Your task to perform on an android device: remove spam from my inbox in the gmail app Image 0: 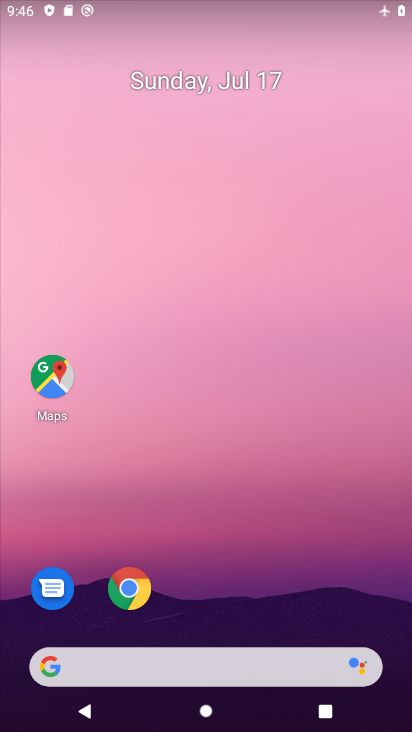
Step 0: drag from (274, 629) to (251, 82)
Your task to perform on an android device: remove spam from my inbox in the gmail app Image 1: 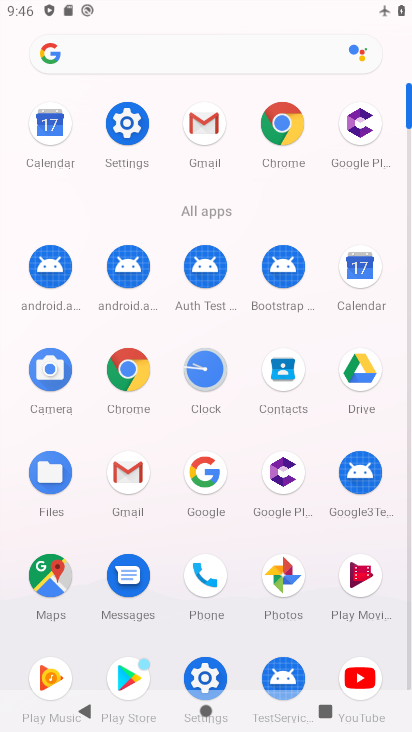
Step 1: click (210, 122)
Your task to perform on an android device: remove spam from my inbox in the gmail app Image 2: 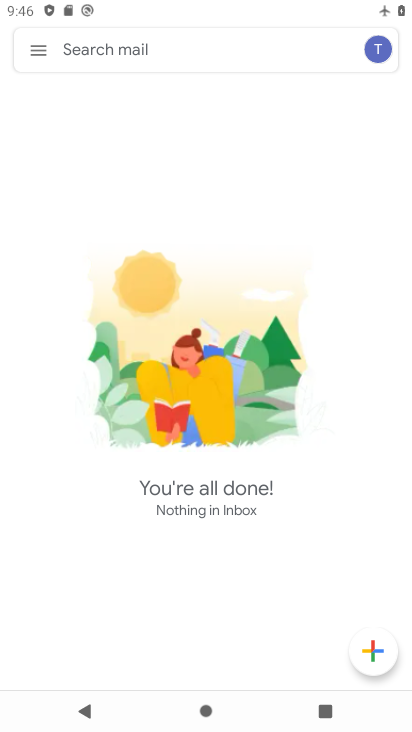
Step 2: click (37, 57)
Your task to perform on an android device: remove spam from my inbox in the gmail app Image 3: 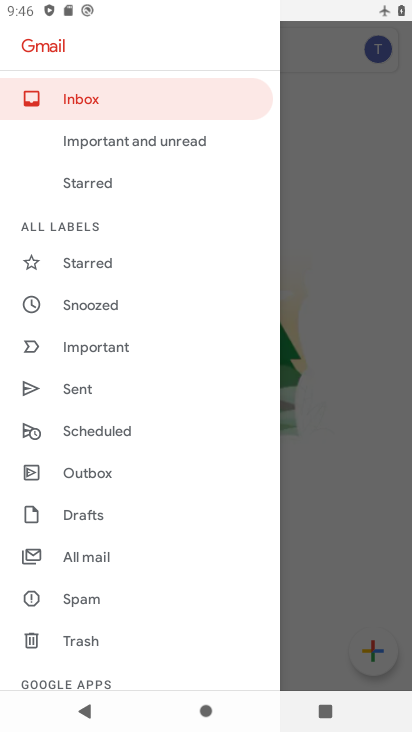
Step 3: click (119, 588)
Your task to perform on an android device: remove spam from my inbox in the gmail app Image 4: 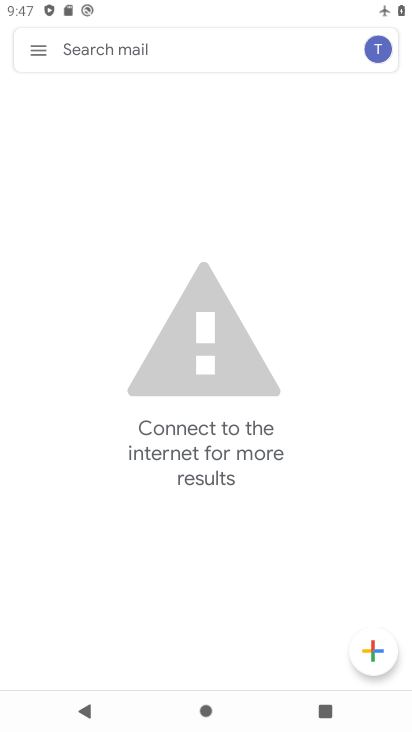
Step 4: task complete